Your task to perform on an android device: turn notification dots on Image 0: 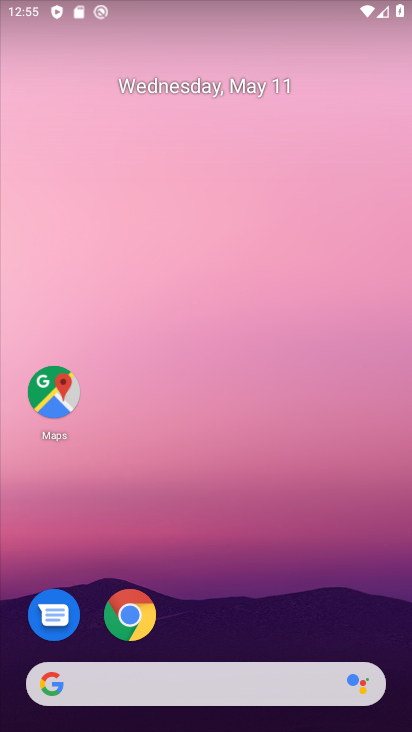
Step 0: drag from (371, 604) to (356, 134)
Your task to perform on an android device: turn notification dots on Image 1: 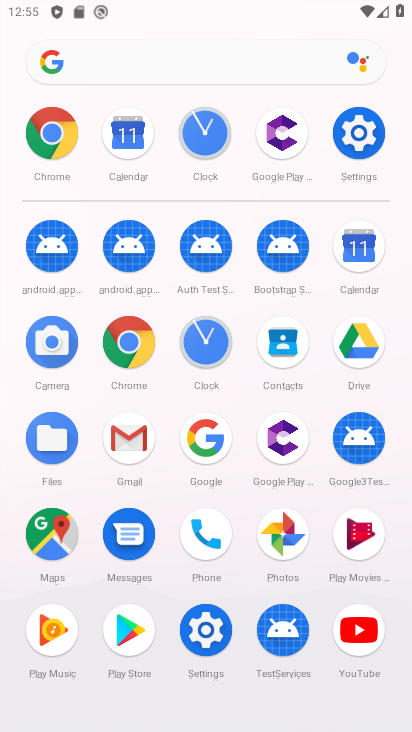
Step 1: click (367, 135)
Your task to perform on an android device: turn notification dots on Image 2: 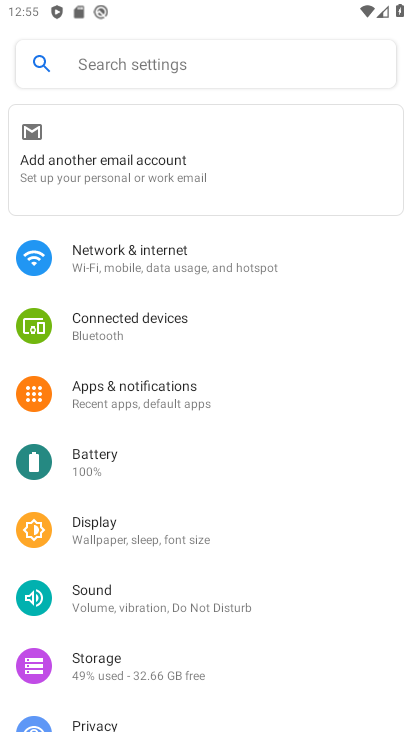
Step 2: click (153, 391)
Your task to perform on an android device: turn notification dots on Image 3: 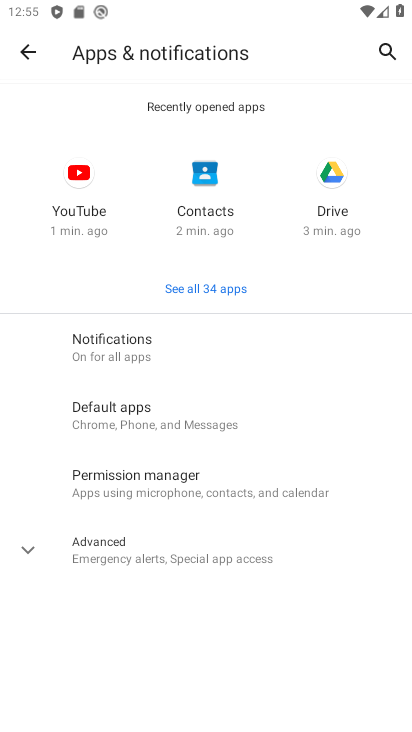
Step 3: click (146, 344)
Your task to perform on an android device: turn notification dots on Image 4: 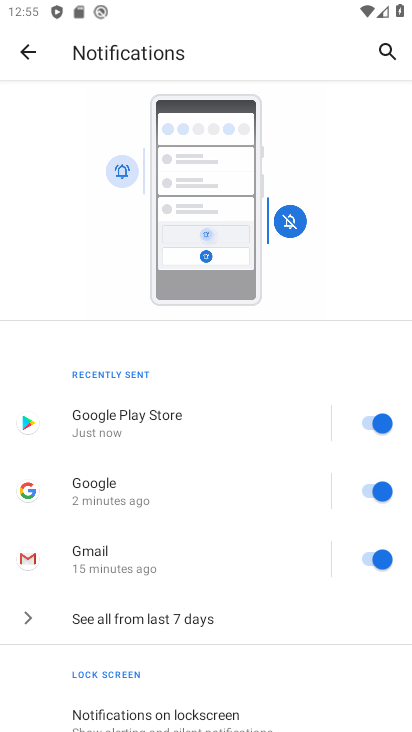
Step 4: drag from (298, 687) to (296, 392)
Your task to perform on an android device: turn notification dots on Image 5: 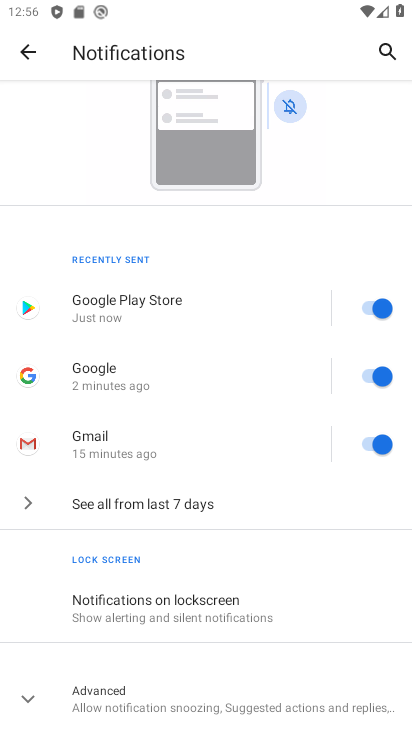
Step 5: click (234, 670)
Your task to perform on an android device: turn notification dots on Image 6: 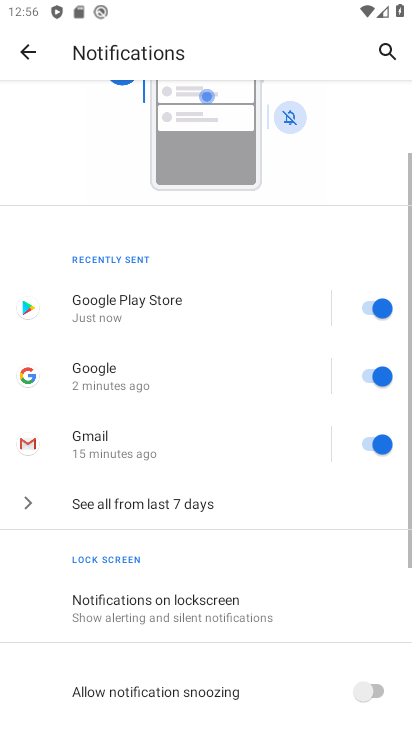
Step 6: drag from (262, 684) to (278, 311)
Your task to perform on an android device: turn notification dots on Image 7: 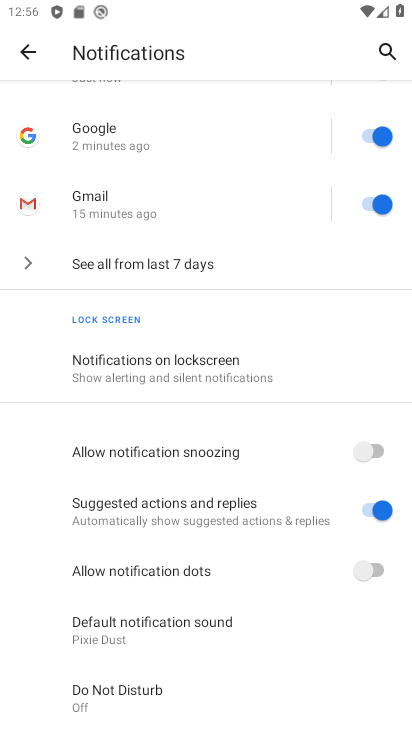
Step 7: click (380, 573)
Your task to perform on an android device: turn notification dots on Image 8: 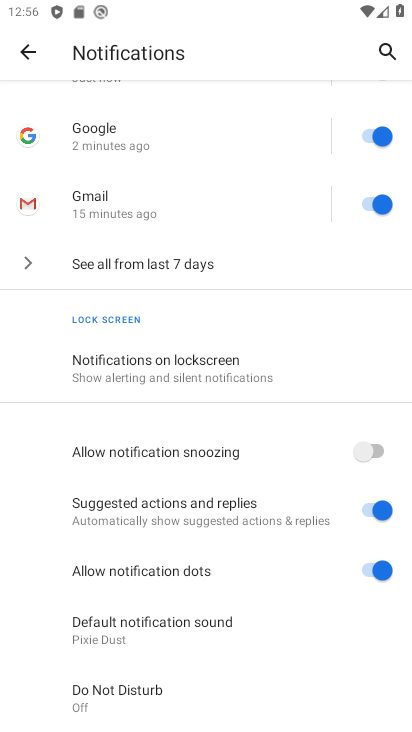
Step 8: task complete